Your task to perform on an android device: Open the stopwatch Image 0: 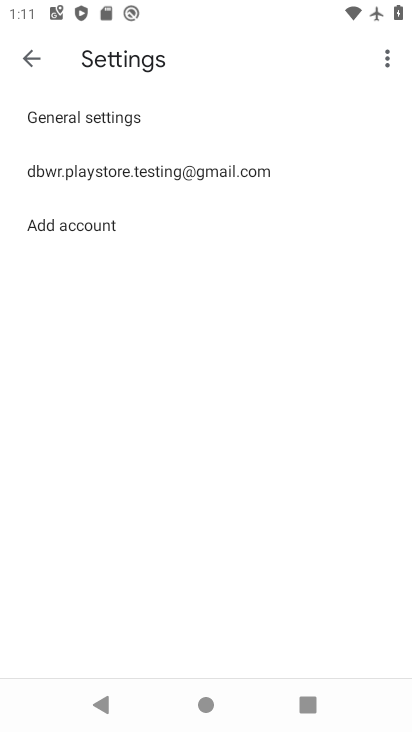
Step 0: press home button
Your task to perform on an android device: Open the stopwatch Image 1: 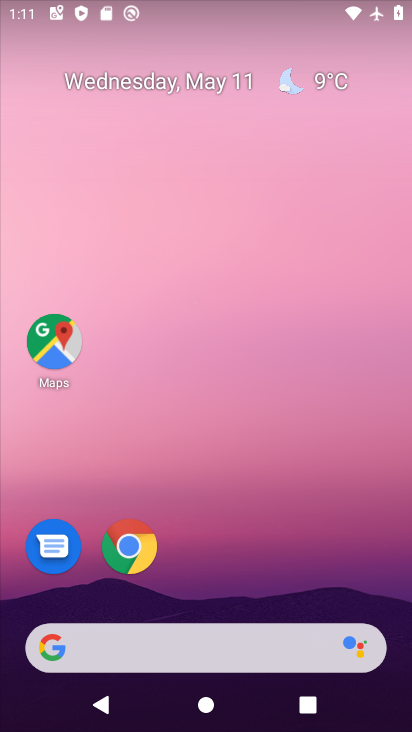
Step 1: drag from (255, 623) to (188, 142)
Your task to perform on an android device: Open the stopwatch Image 2: 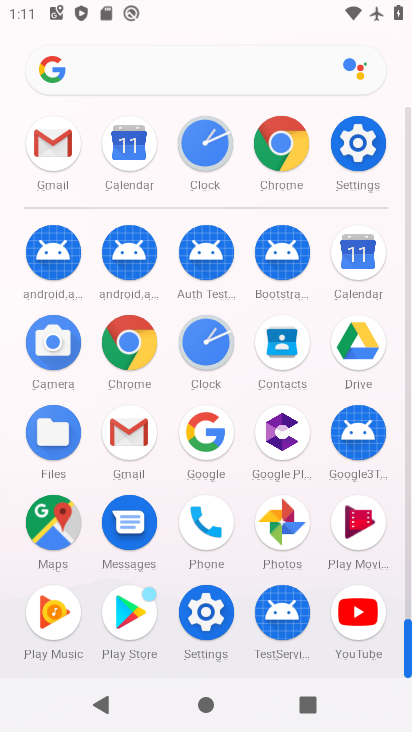
Step 2: click (211, 353)
Your task to perform on an android device: Open the stopwatch Image 3: 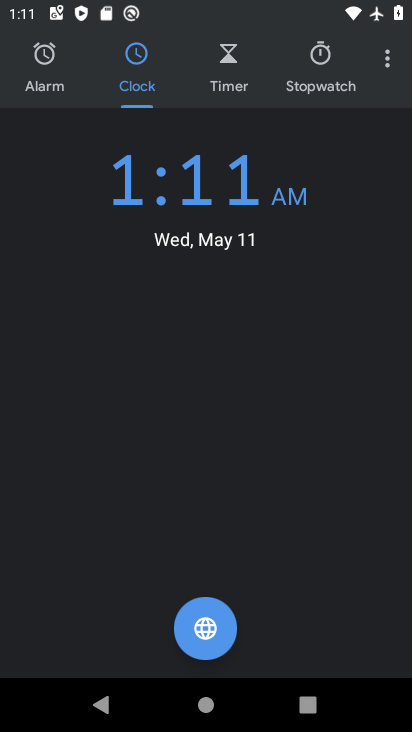
Step 3: click (309, 57)
Your task to perform on an android device: Open the stopwatch Image 4: 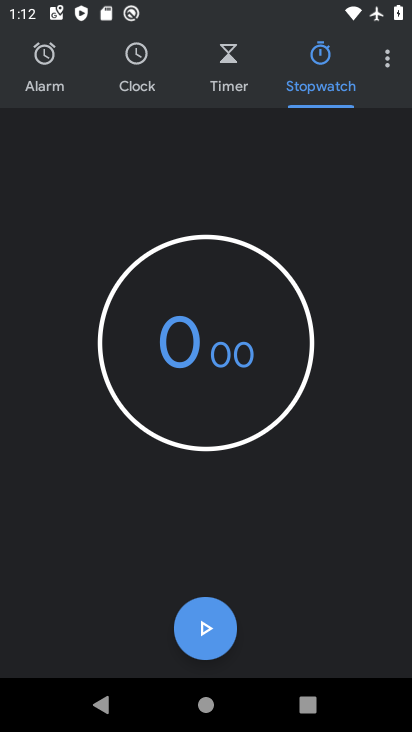
Step 4: task complete